Your task to perform on an android device: Check the latest 3D printers on Target. Image 0: 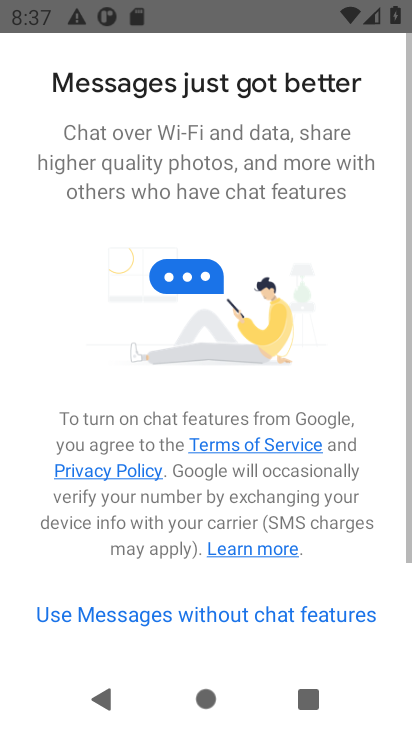
Step 0: press home button
Your task to perform on an android device: Check the latest 3D printers on Target. Image 1: 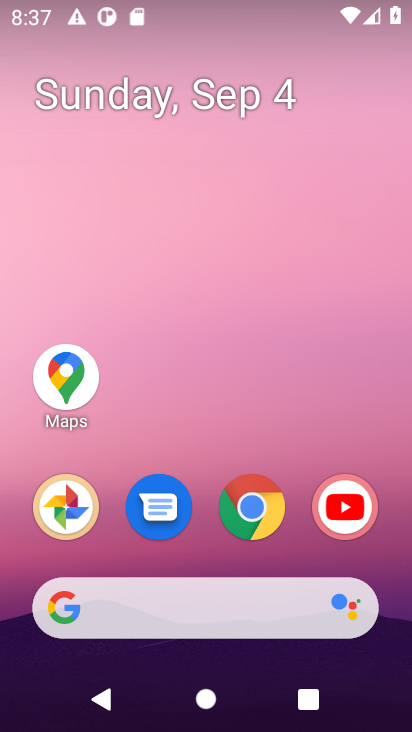
Step 1: click (244, 511)
Your task to perform on an android device: Check the latest 3D printers on Target. Image 2: 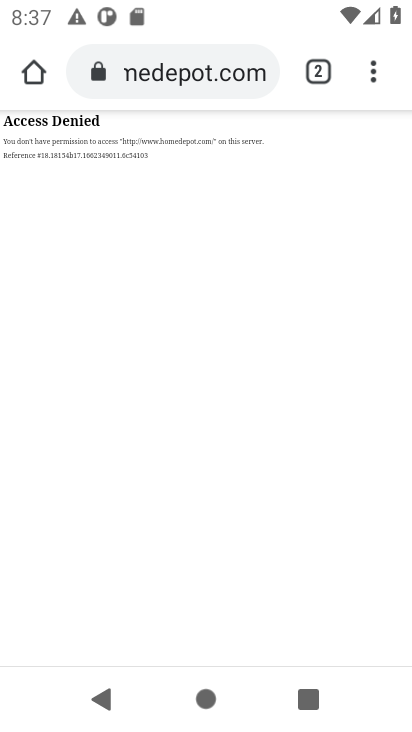
Step 2: click (161, 50)
Your task to perform on an android device: Check the latest 3D printers on Target. Image 3: 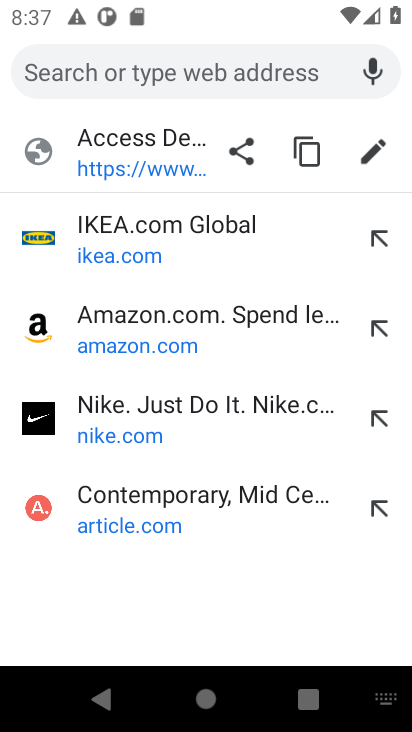
Step 3: type " Target"
Your task to perform on an android device: Check the latest 3D printers on Target. Image 4: 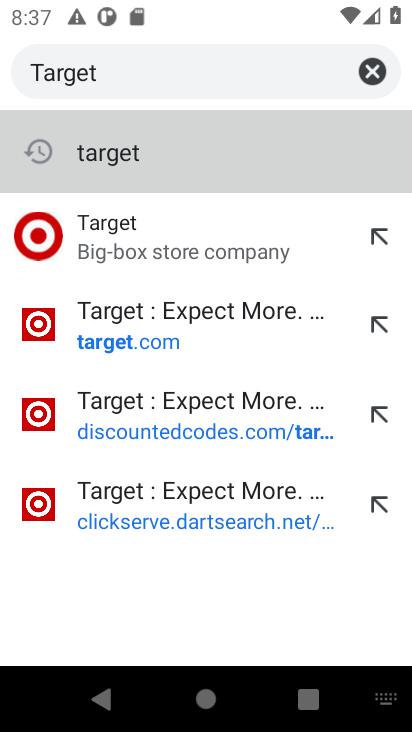
Step 4: click (107, 232)
Your task to perform on an android device: Check the latest 3D printers on Target. Image 5: 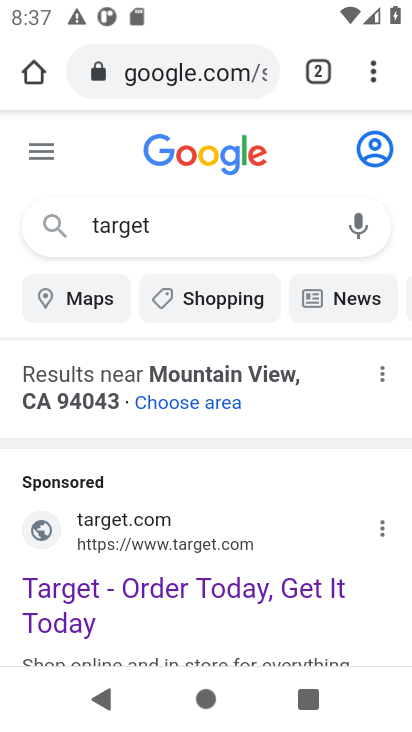
Step 5: click (87, 533)
Your task to perform on an android device: Check the latest 3D printers on Target. Image 6: 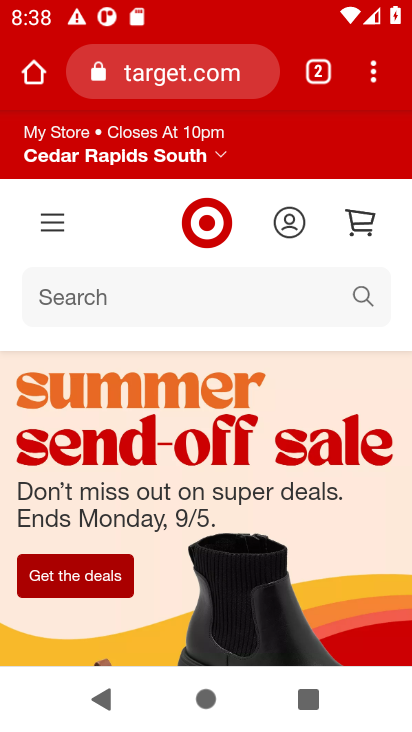
Step 6: click (129, 302)
Your task to perform on an android device: Check the latest 3D printers on Target. Image 7: 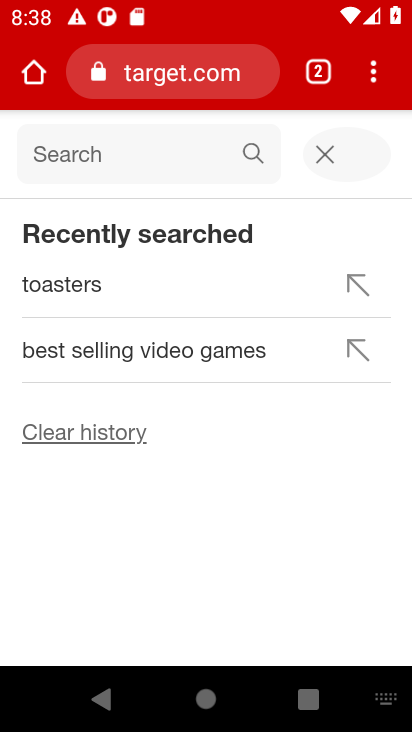
Step 7: type "latest 3D printers "
Your task to perform on an android device: Check the latest 3D printers on Target. Image 8: 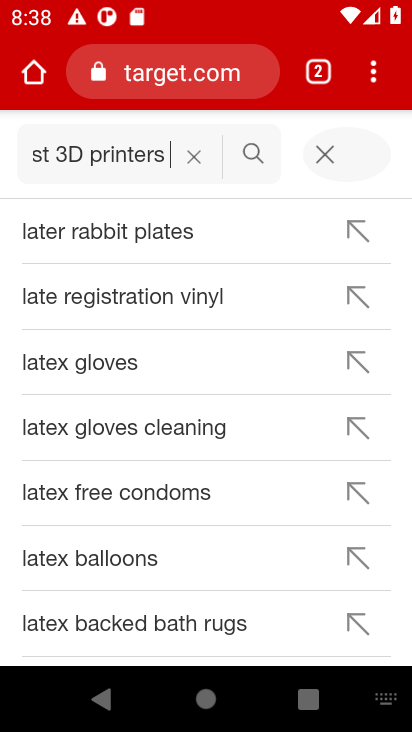
Step 8: click (246, 149)
Your task to perform on an android device: Check the latest 3D printers on Target. Image 9: 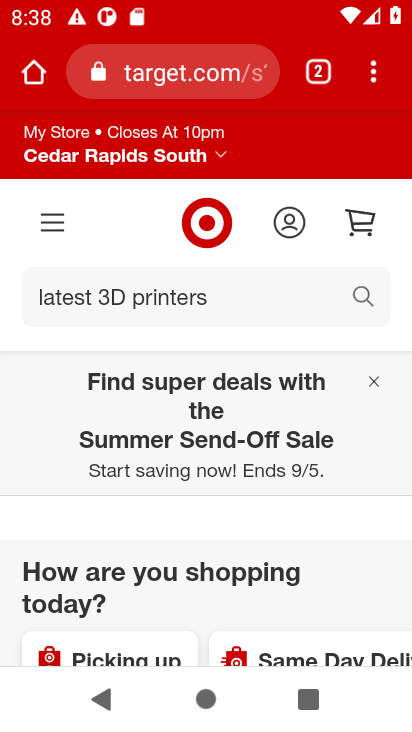
Step 9: task complete